Your task to perform on an android device: Open Yahoo.com Image 0: 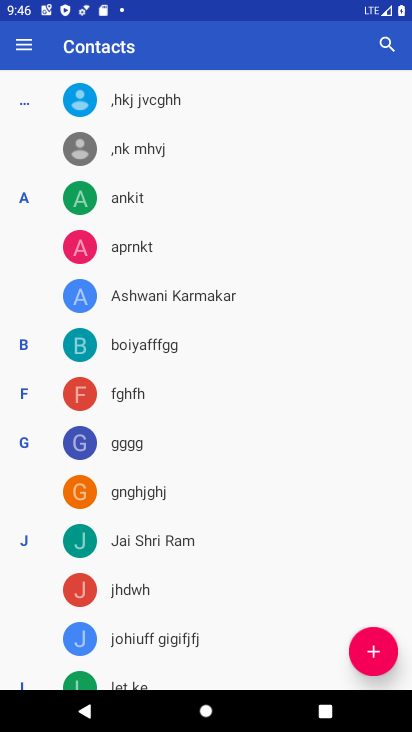
Step 0: press home button
Your task to perform on an android device: Open Yahoo.com Image 1: 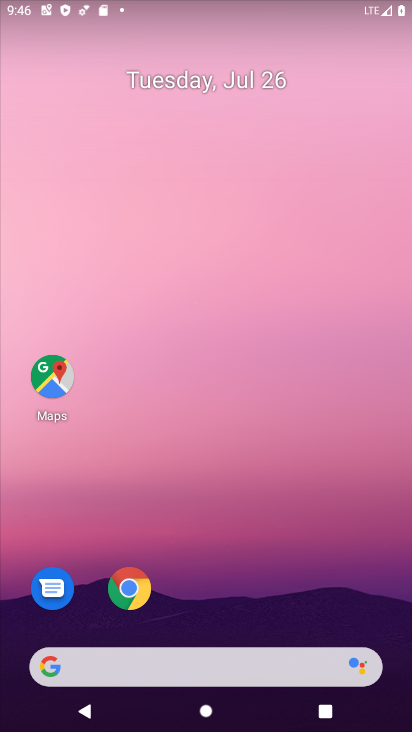
Step 1: click (128, 588)
Your task to perform on an android device: Open Yahoo.com Image 2: 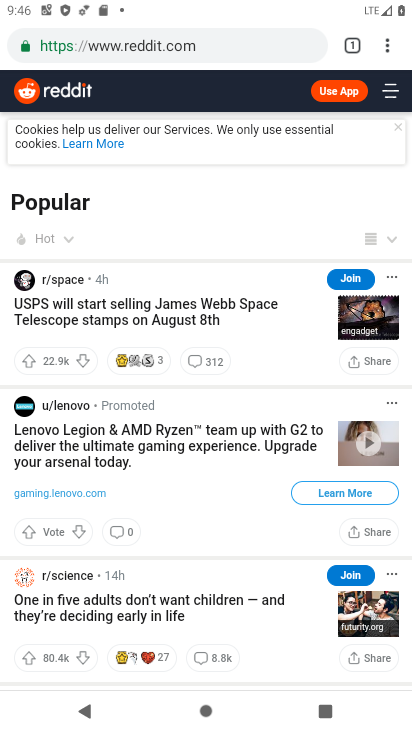
Step 2: click (228, 41)
Your task to perform on an android device: Open Yahoo.com Image 3: 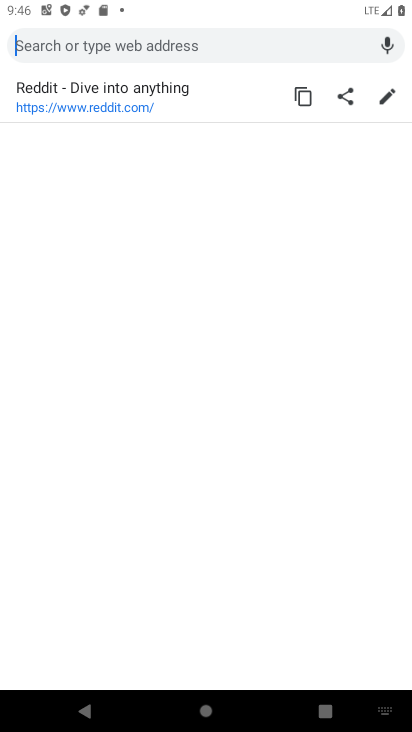
Step 3: type "Yahoo.com"
Your task to perform on an android device: Open Yahoo.com Image 4: 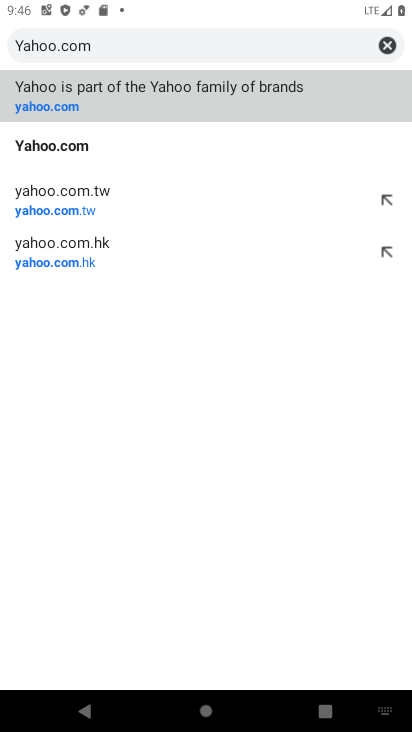
Step 4: click (61, 144)
Your task to perform on an android device: Open Yahoo.com Image 5: 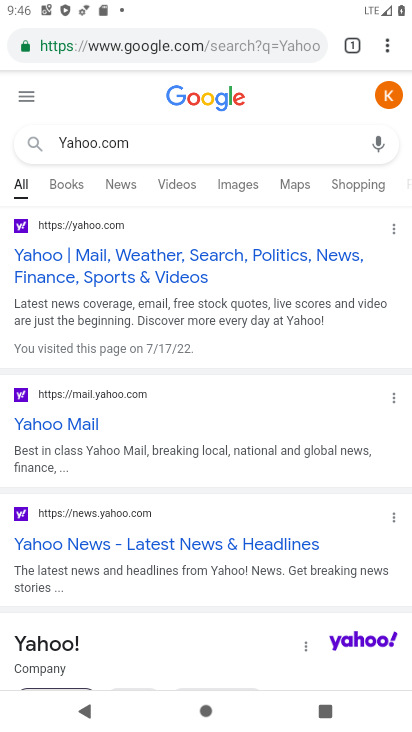
Step 5: click (61, 263)
Your task to perform on an android device: Open Yahoo.com Image 6: 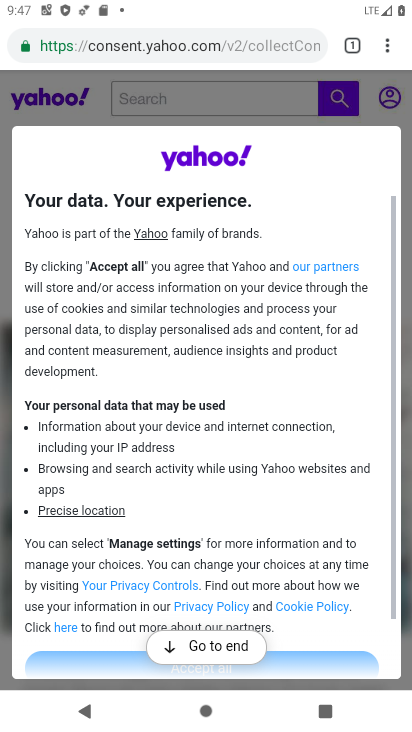
Step 6: click (189, 643)
Your task to perform on an android device: Open Yahoo.com Image 7: 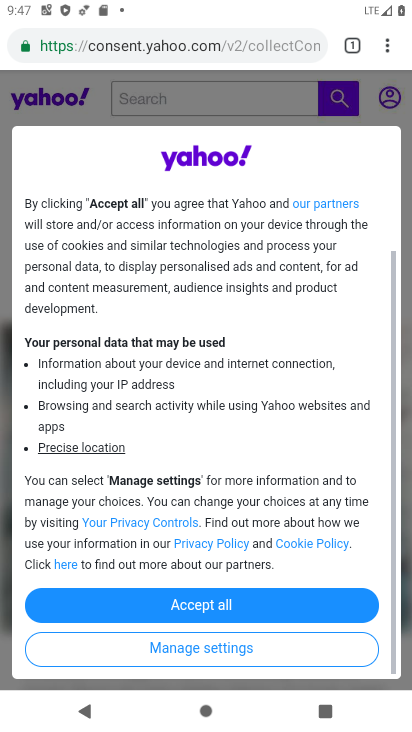
Step 7: click (209, 608)
Your task to perform on an android device: Open Yahoo.com Image 8: 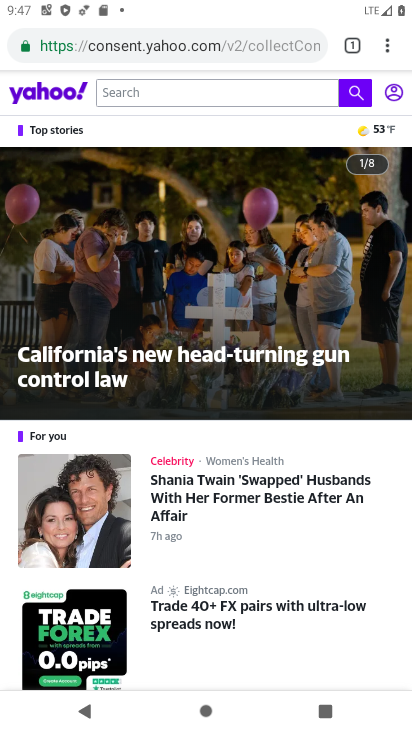
Step 8: task complete